Your task to perform on an android device: delete location history Image 0: 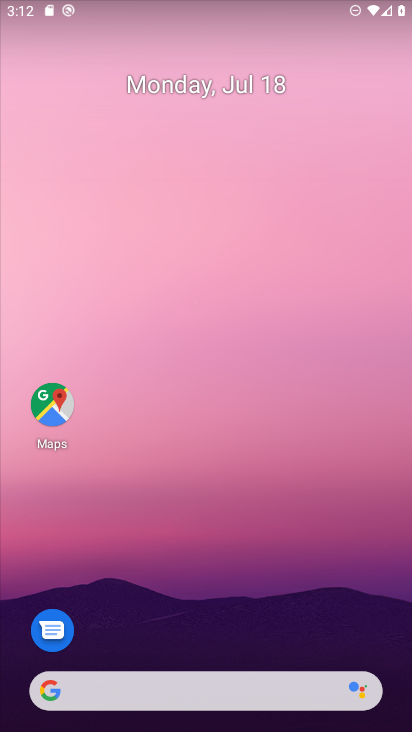
Step 0: drag from (315, 688) to (397, 46)
Your task to perform on an android device: delete location history Image 1: 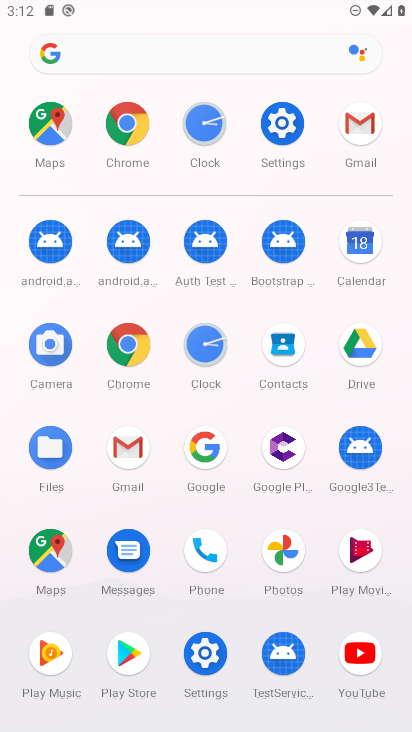
Step 1: click (40, 556)
Your task to perform on an android device: delete location history Image 2: 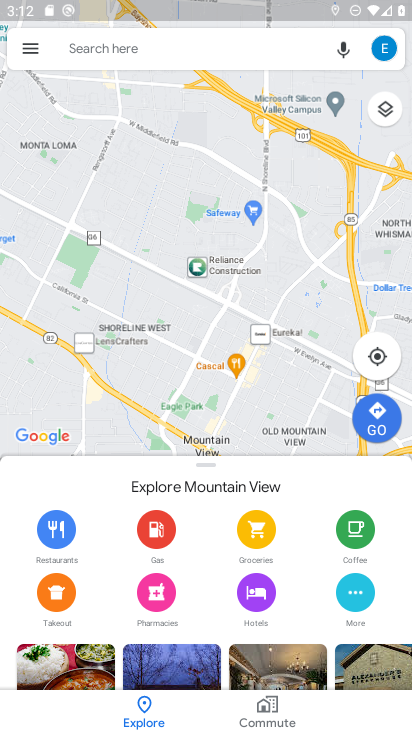
Step 2: click (20, 40)
Your task to perform on an android device: delete location history Image 3: 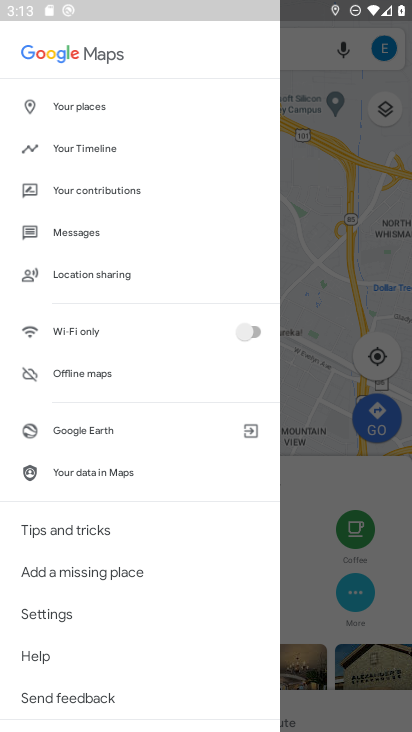
Step 3: click (97, 148)
Your task to perform on an android device: delete location history Image 4: 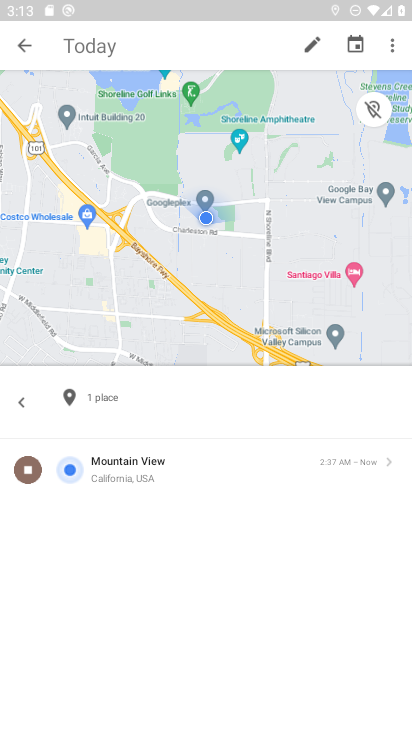
Step 4: click (392, 36)
Your task to perform on an android device: delete location history Image 5: 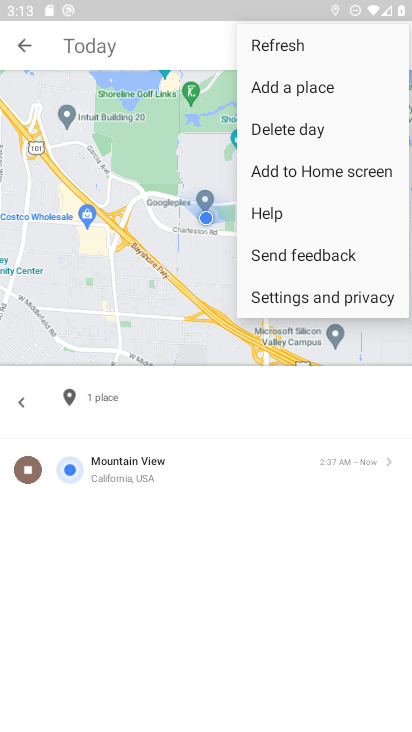
Step 5: click (349, 307)
Your task to perform on an android device: delete location history Image 6: 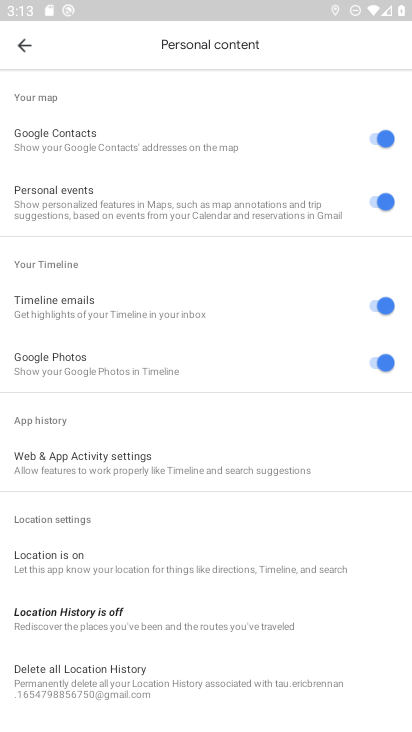
Step 6: click (58, 685)
Your task to perform on an android device: delete location history Image 7: 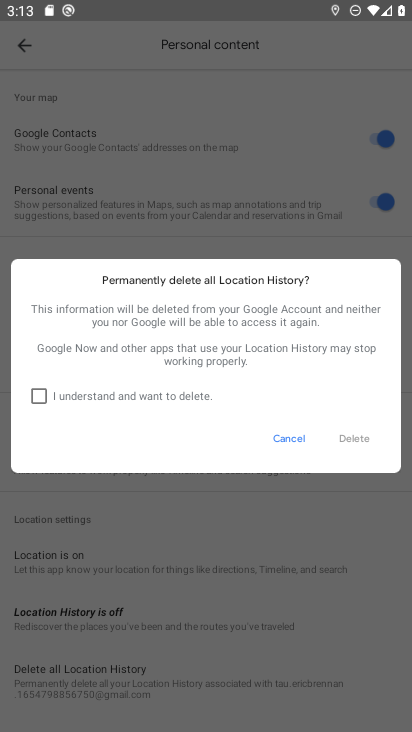
Step 7: click (36, 394)
Your task to perform on an android device: delete location history Image 8: 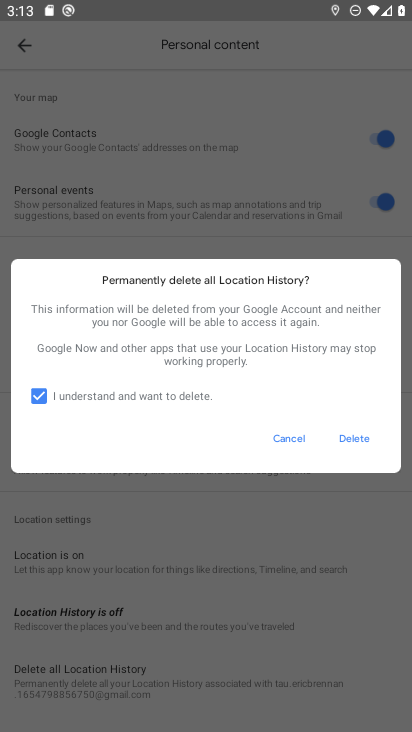
Step 8: click (365, 441)
Your task to perform on an android device: delete location history Image 9: 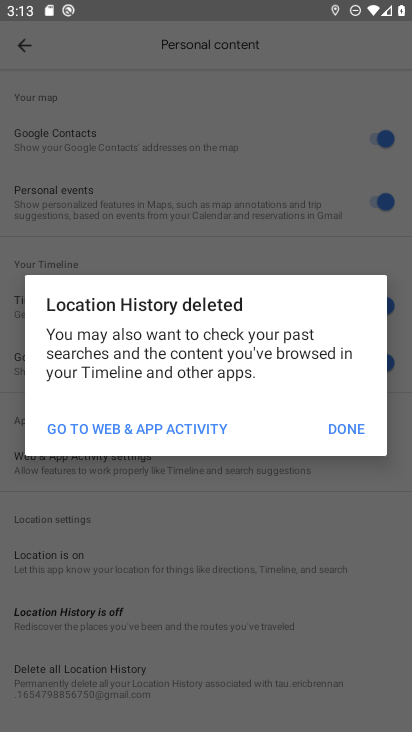
Step 9: click (355, 424)
Your task to perform on an android device: delete location history Image 10: 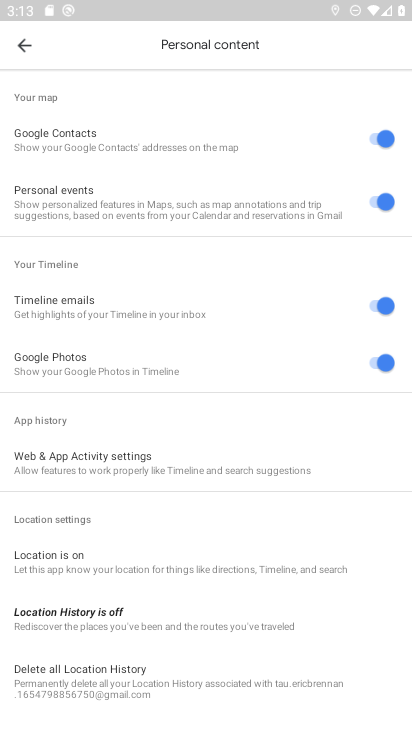
Step 10: task complete